Your task to perform on an android device: search for starred emails in the gmail app Image 0: 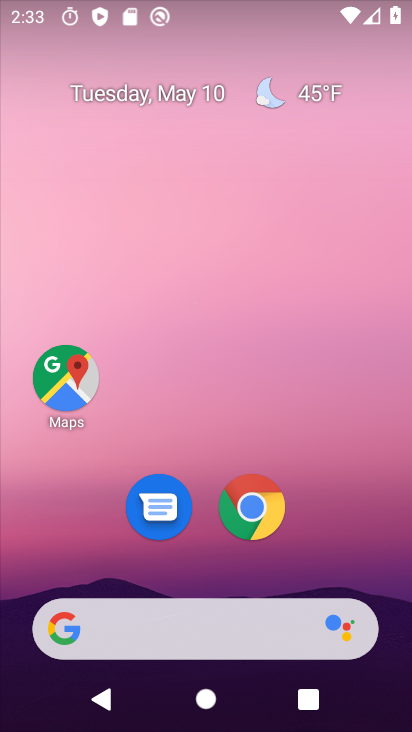
Step 0: drag from (230, 591) to (191, 173)
Your task to perform on an android device: search for starred emails in the gmail app Image 1: 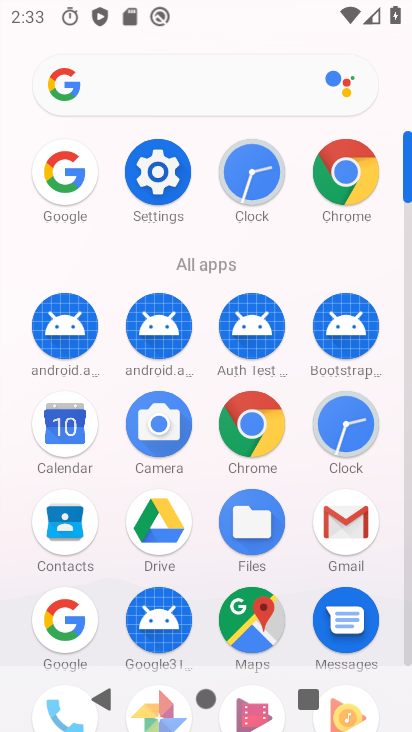
Step 1: click (344, 527)
Your task to perform on an android device: search for starred emails in the gmail app Image 2: 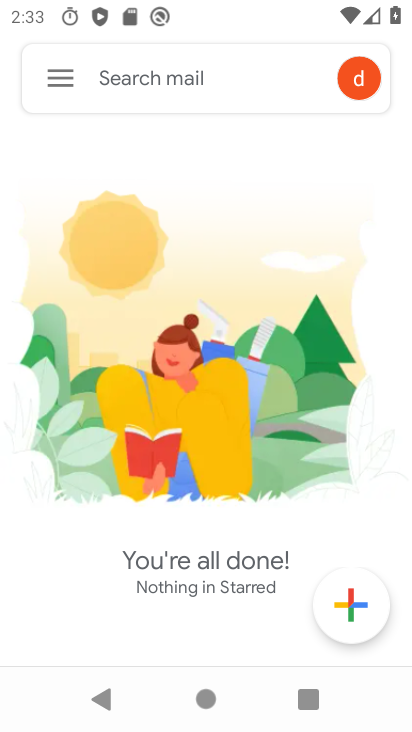
Step 2: click (44, 76)
Your task to perform on an android device: search for starred emails in the gmail app Image 3: 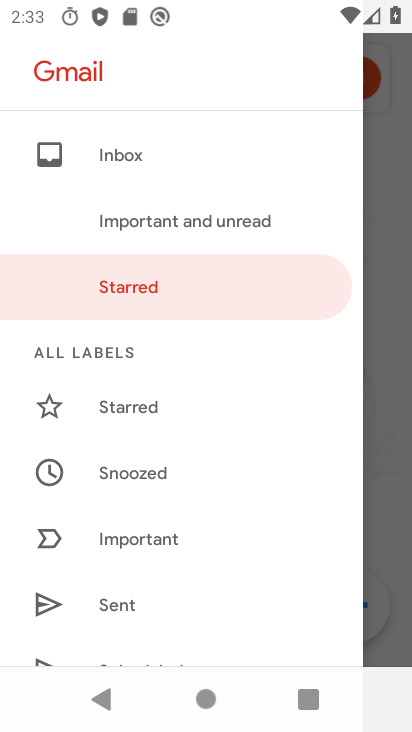
Step 3: click (130, 421)
Your task to perform on an android device: search for starred emails in the gmail app Image 4: 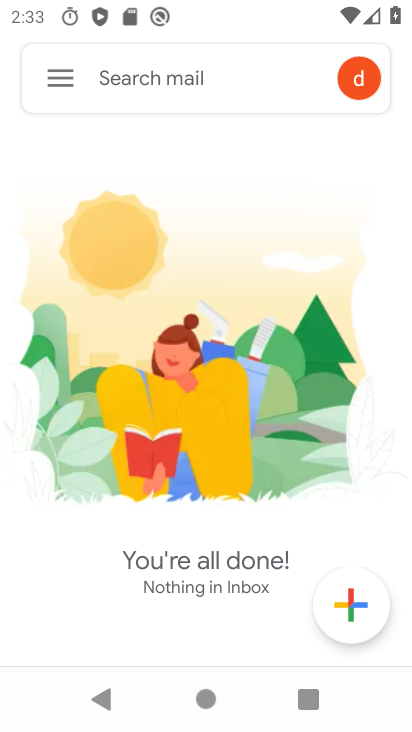
Step 4: task complete